Your task to perform on an android device: turn on showing notifications on the lock screen Image 0: 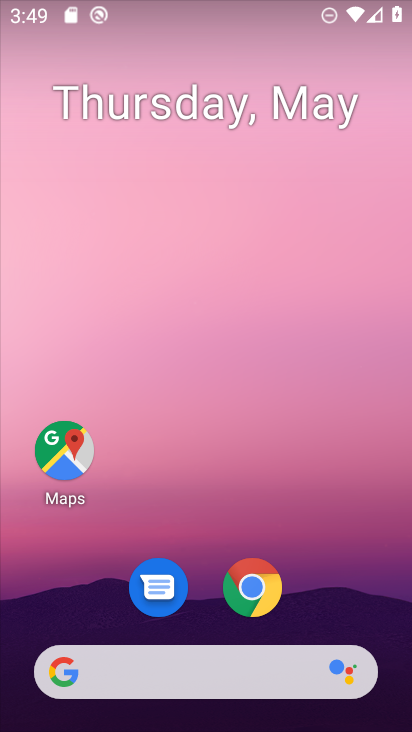
Step 0: drag from (375, 593) to (372, 298)
Your task to perform on an android device: turn on showing notifications on the lock screen Image 1: 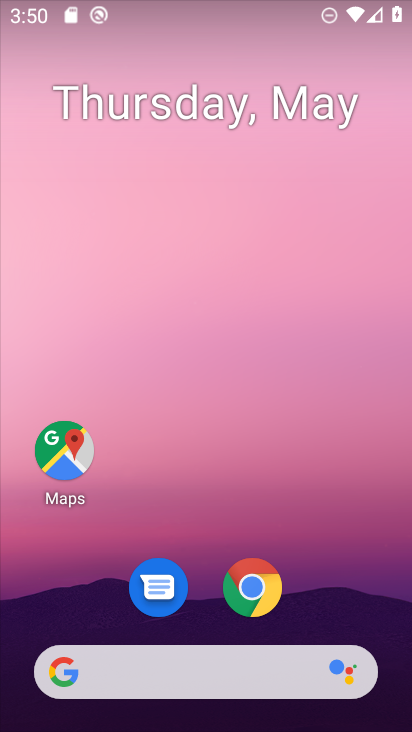
Step 1: drag from (345, 458) to (352, 101)
Your task to perform on an android device: turn on showing notifications on the lock screen Image 2: 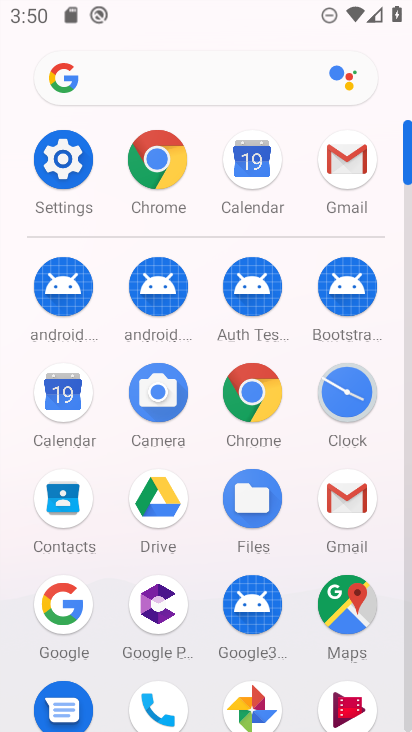
Step 2: click (90, 192)
Your task to perform on an android device: turn on showing notifications on the lock screen Image 3: 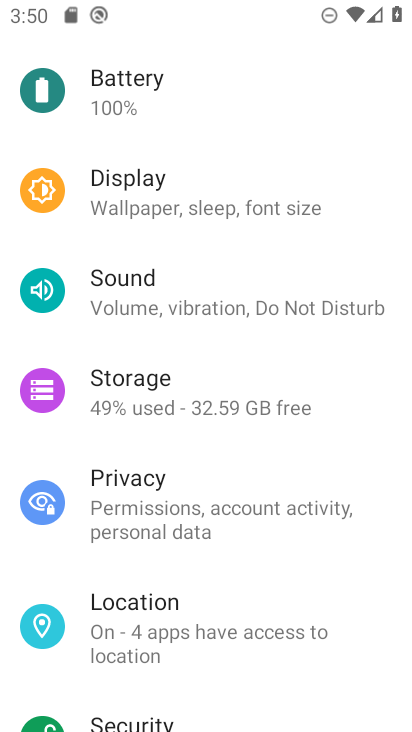
Step 3: drag from (342, 597) to (346, 528)
Your task to perform on an android device: turn on showing notifications on the lock screen Image 4: 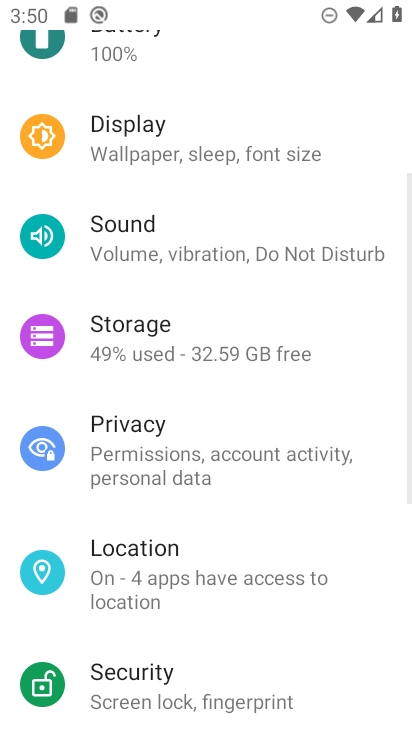
Step 4: drag from (345, 616) to (343, 507)
Your task to perform on an android device: turn on showing notifications on the lock screen Image 5: 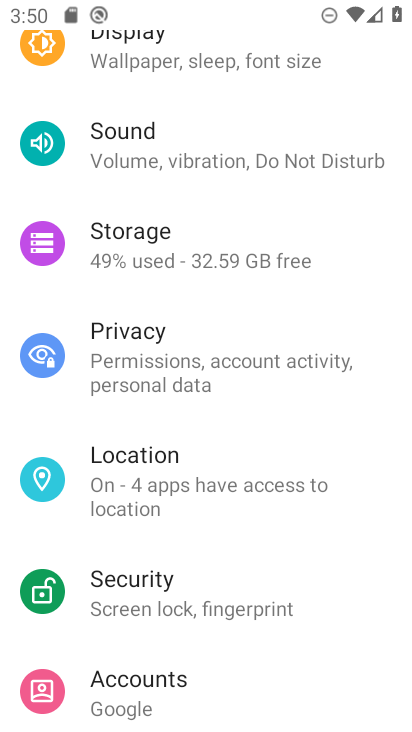
Step 5: drag from (343, 648) to (359, 551)
Your task to perform on an android device: turn on showing notifications on the lock screen Image 6: 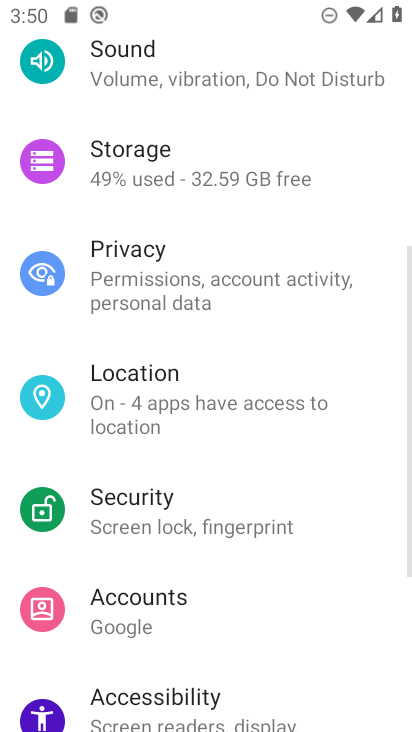
Step 6: drag from (339, 665) to (346, 553)
Your task to perform on an android device: turn on showing notifications on the lock screen Image 7: 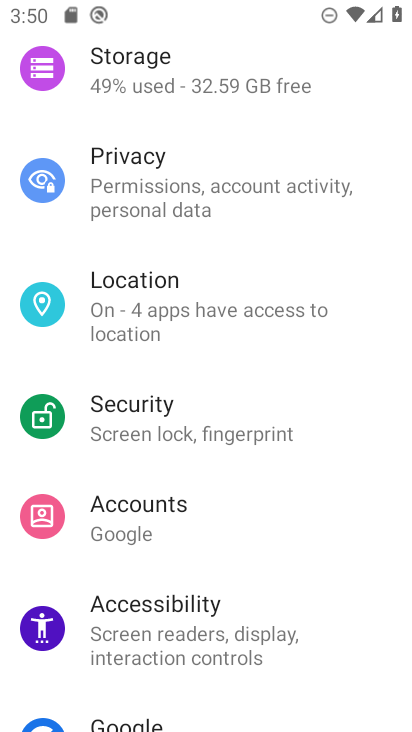
Step 7: drag from (328, 674) to (327, 446)
Your task to perform on an android device: turn on showing notifications on the lock screen Image 8: 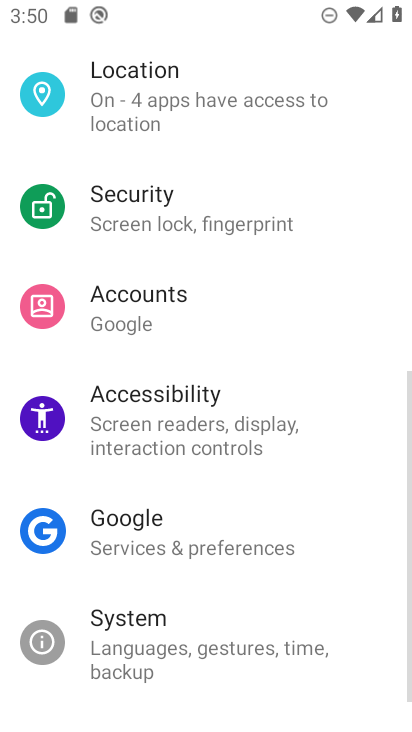
Step 8: drag from (335, 338) to (336, 443)
Your task to perform on an android device: turn on showing notifications on the lock screen Image 9: 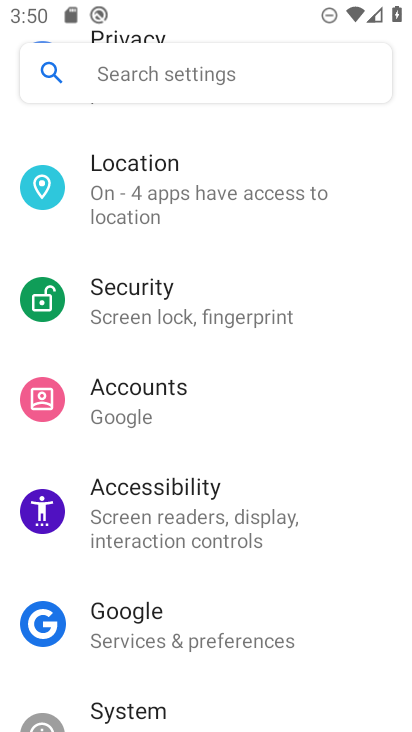
Step 9: drag from (330, 316) to (324, 428)
Your task to perform on an android device: turn on showing notifications on the lock screen Image 10: 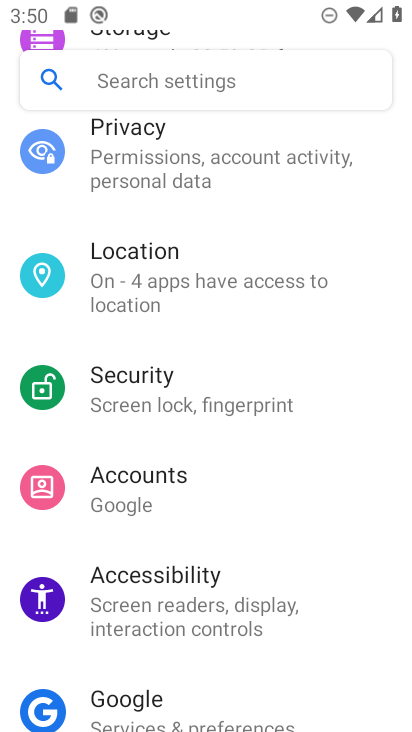
Step 10: drag from (353, 319) to (358, 412)
Your task to perform on an android device: turn on showing notifications on the lock screen Image 11: 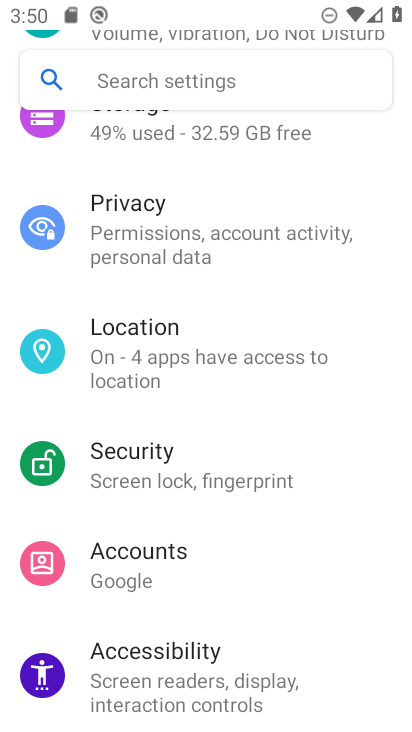
Step 11: drag from (365, 307) to (356, 410)
Your task to perform on an android device: turn on showing notifications on the lock screen Image 12: 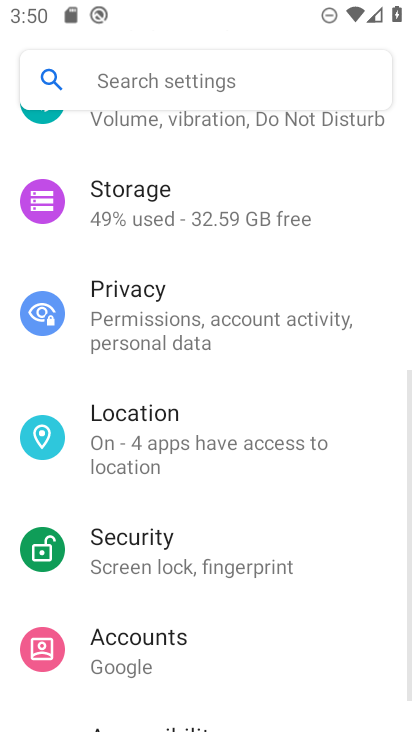
Step 12: drag from (355, 260) to (361, 368)
Your task to perform on an android device: turn on showing notifications on the lock screen Image 13: 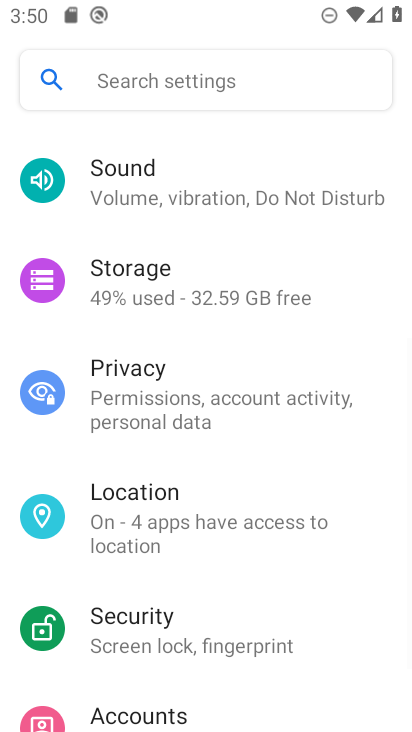
Step 13: drag from (368, 238) to (363, 340)
Your task to perform on an android device: turn on showing notifications on the lock screen Image 14: 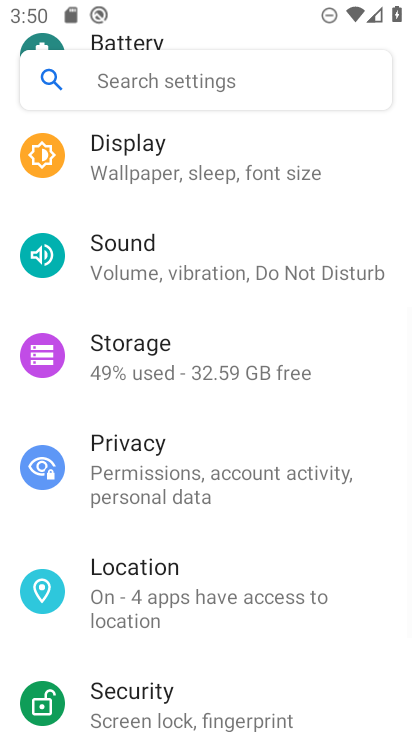
Step 14: drag from (354, 222) to (364, 324)
Your task to perform on an android device: turn on showing notifications on the lock screen Image 15: 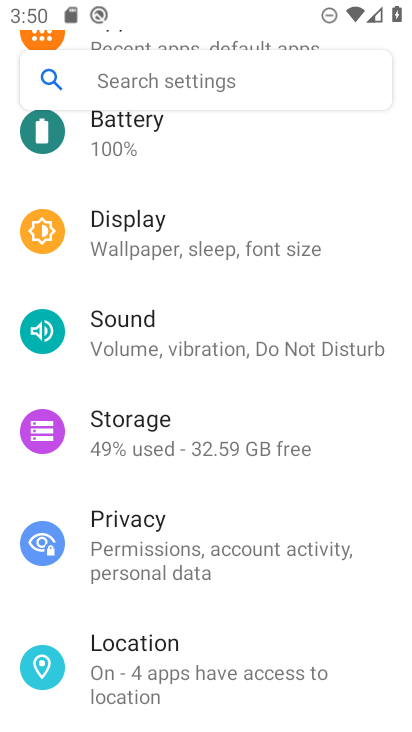
Step 15: drag from (366, 199) to (373, 344)
Your task to perform on an android device: turn on showing notifications on the lock screen Image 16: 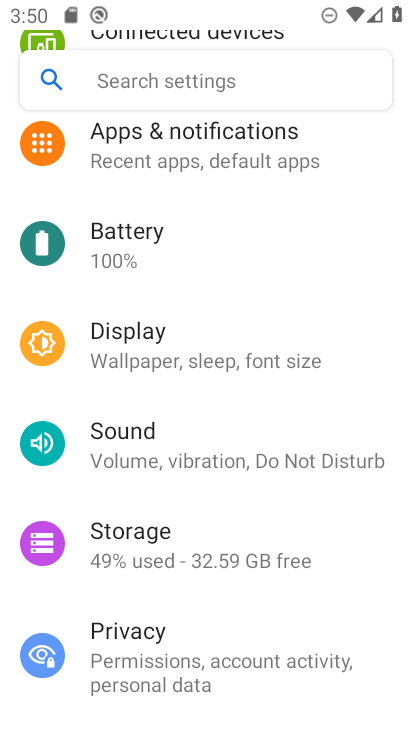
Step 16: drag from (358, 195) to (363, 301)
Your task to perform on an android device: turn on showing notifications on the lock screen Image 17: 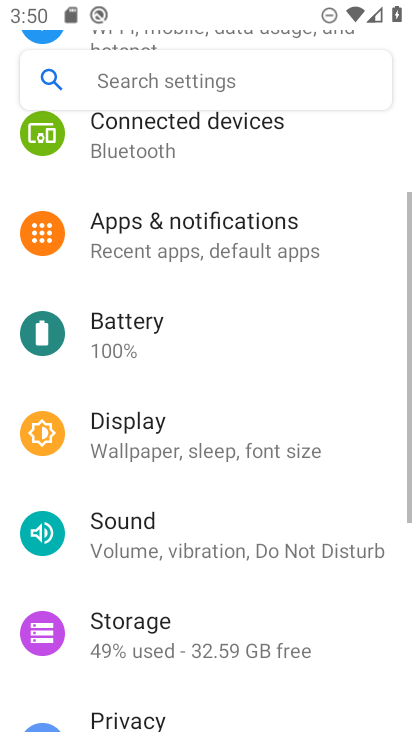
Step 17: click (301, 255)
Your task to perform on an android device: turn on showing notifications on the lock screen Image 18: 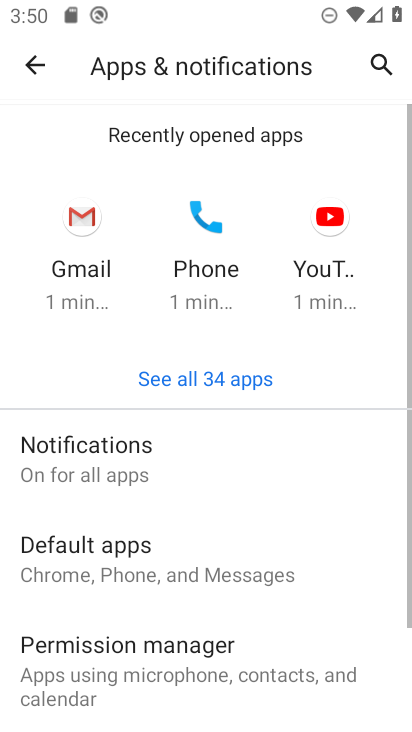
Step 18: drag from (284, 441) to (280, 274)
Your task to perform on an android device: turn on showing notifications on the lock screen Image 19: 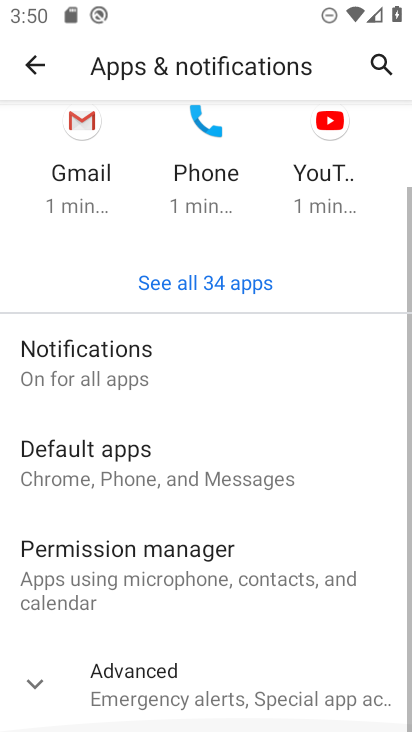
Step 19: click (267, 371)
Your task to perform on an android device: turn on showing notifications on the lock screen Image 20: 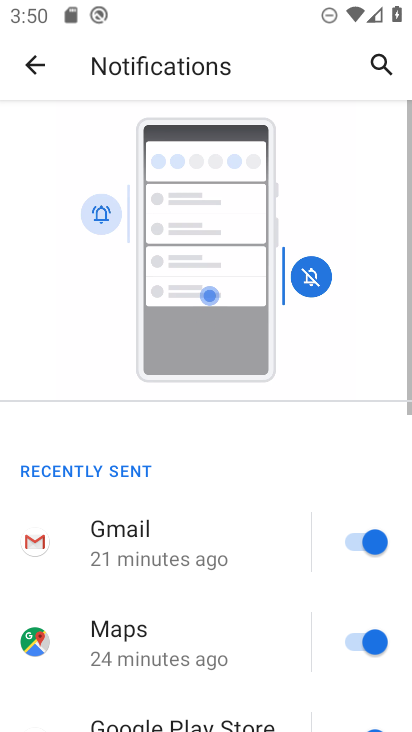
Step 20: drag from (293, 443) to (286, 307)
Your task to perform on an android device: turn on showing notifications on the lock screen Image 21: 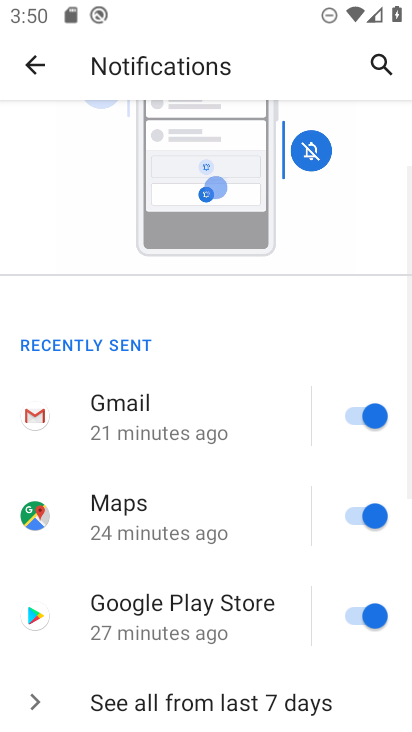
Step 21: drag from (275, 478) to (288, 342)
Your task to perform on an android device: turn on showing notifications on the lock screen Image 22: 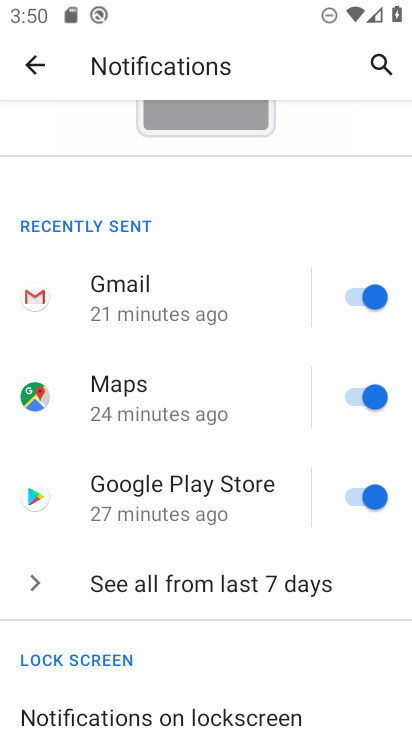
Step 22: drag from (282, 519) to (274, 379)
Your task to perform on an android device: turn on showing notifications on the lock screen Image 23: 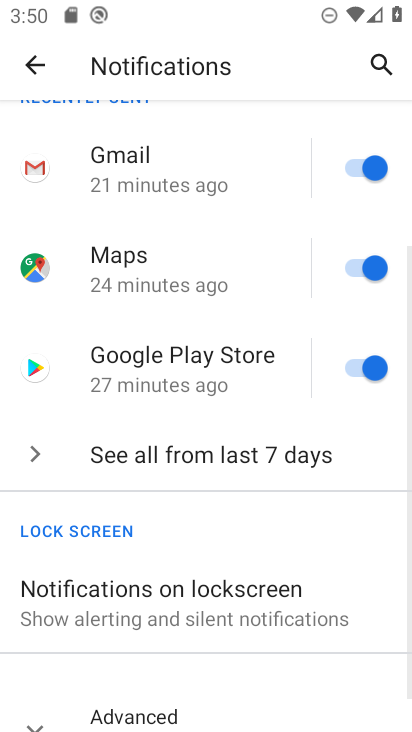
Step 23: drag from (247, 567) to (242, 449)
Your task to perform on an android device: turn on showing notifications on the lock screen Image 24: 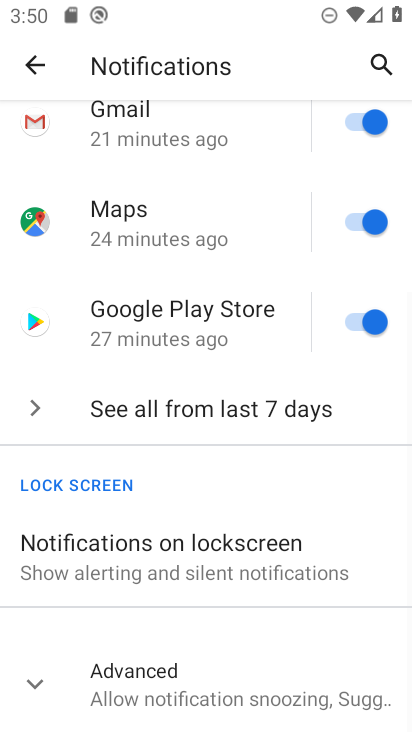
Step 24: click (212, 543)
Your task to perform on an android device: turn on showing notifications on the lock screen Image 25: 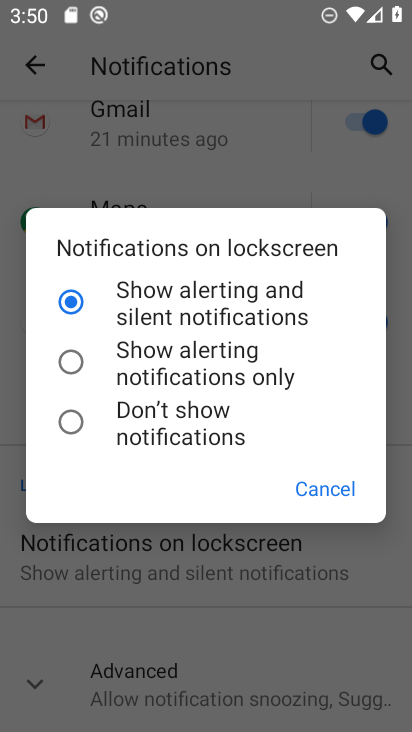
Step 25: task complete